Your task to perform on an android device: Show me popular games on the Play Store Image 0: 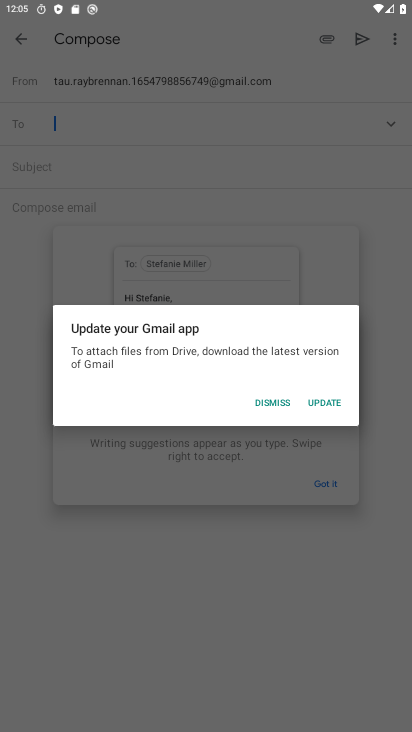
Step 0: press home button
Your task to perform on an android device: Show me popular games on the Play Store Image 1: 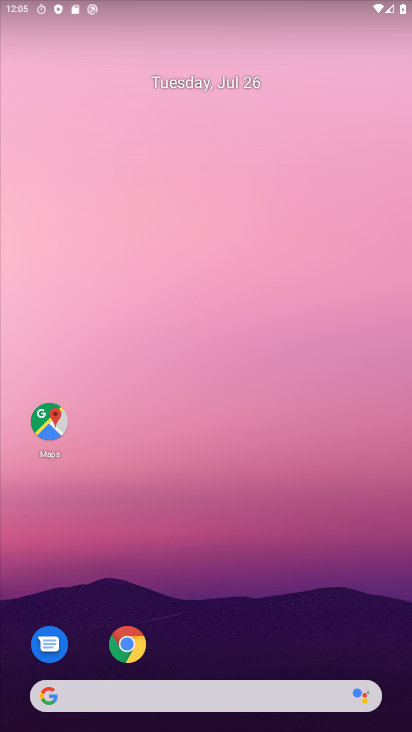
Step 1: drag from (238, 612) to (301, 65)
Your task to perform on an android device: Show me popular games on the Play Store Image 2: 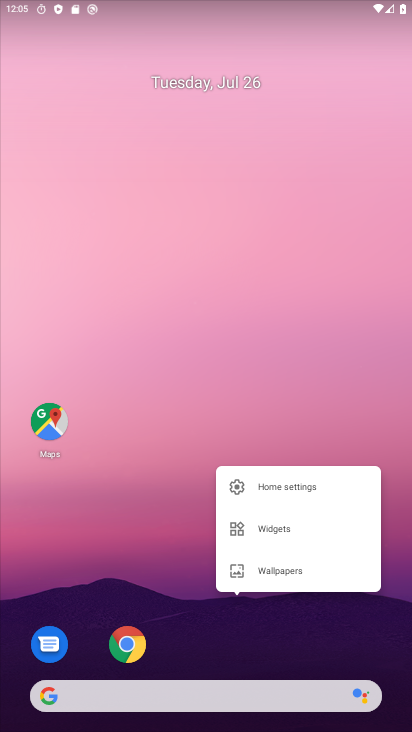
Step 2: click (270, 199)
Your task to perform on an android device: Show me popular games on the Play Store Image 3: 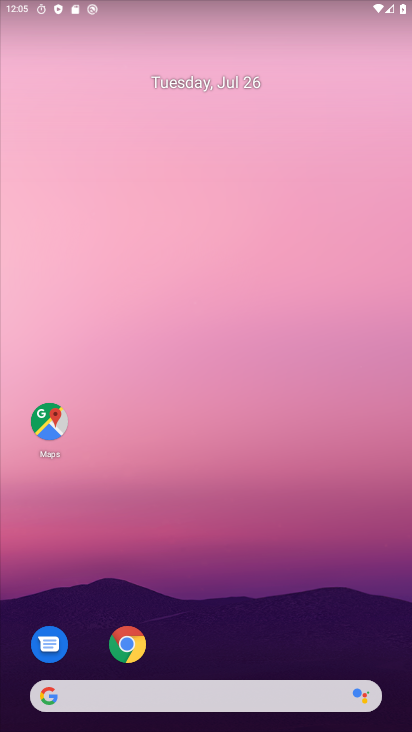
Step 3: drag from (245, 587) to (265, 67)
Your task to perform on an android device: Show me popular games on the Play Store Image 4: 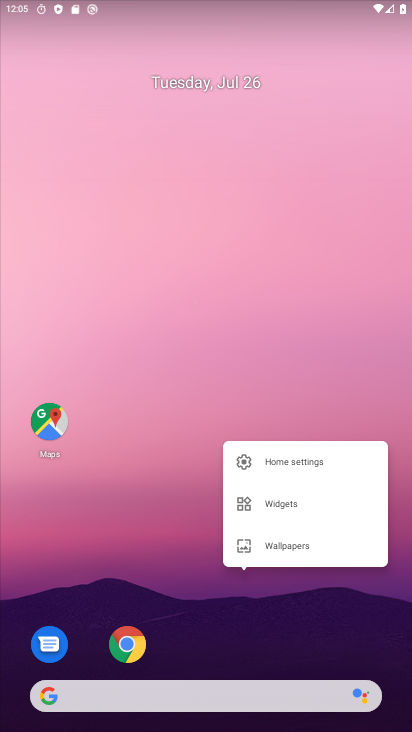
Step 4: click (152, 370)
Your task to perform on an android device: Show me popular games on the Play Store Image 5: 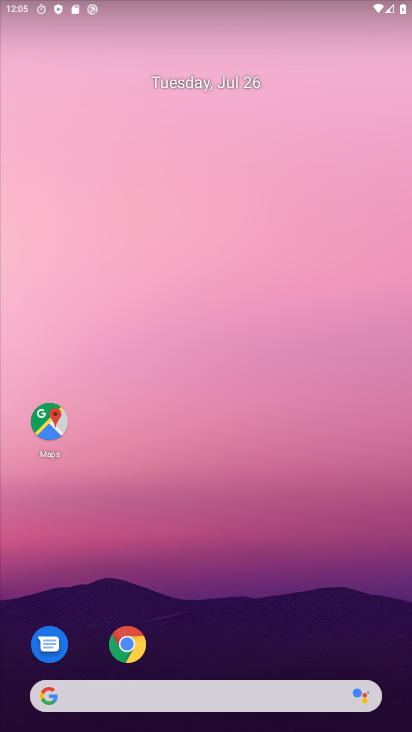
Step 5: drag from (279, 646) to (313, 4)
Your task to perform on an android device: Show me popular games on the Play Store Image 6: 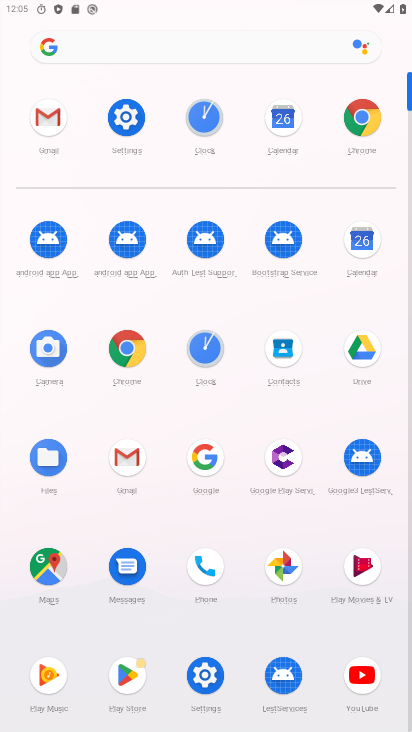
Step 6: click (136, 682)
Your task to perform on an android device: Show me popular games on the Play Store Image 7: 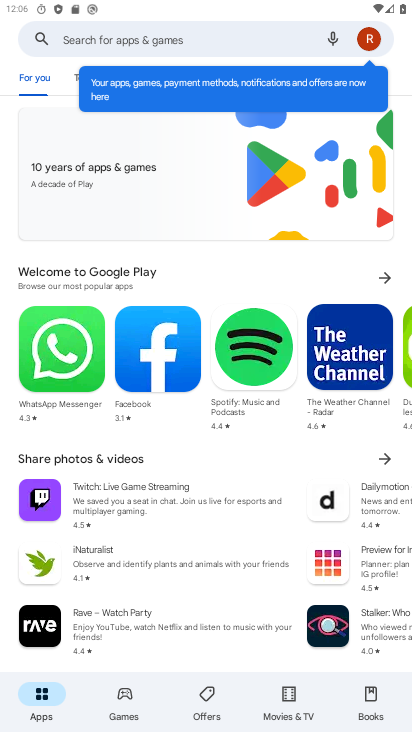
Step 7: click (146, 28)
Your task to perform on an android device: Show me popular games on the Play Store Image 8: 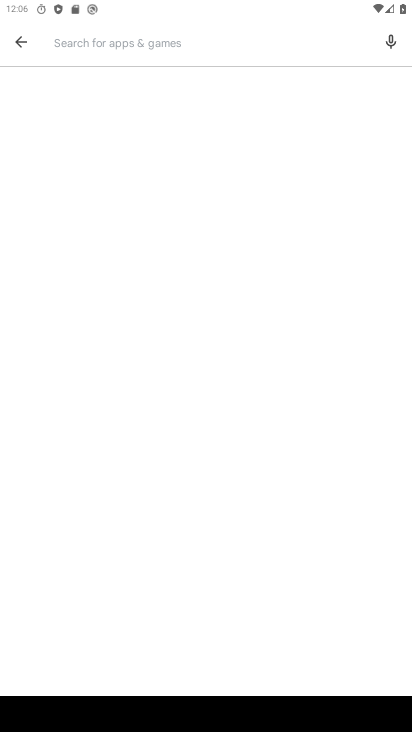
Step 8: type "popular game"
Your task to perform on an android device: Show me popular games on the Play Store Image 9: 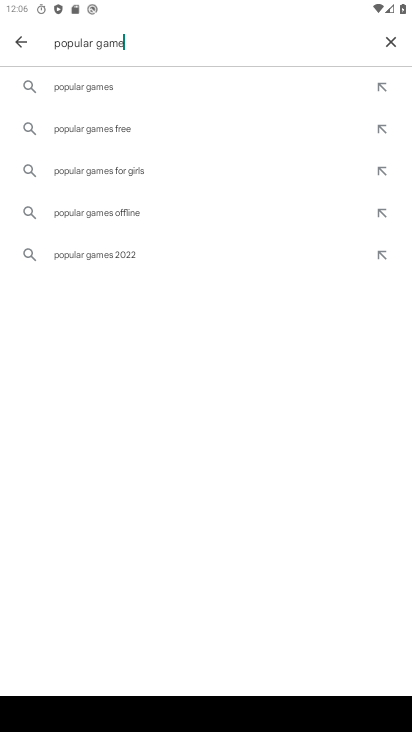
Step 9: click (108, 102)
Your task to perform on an android device: Show me popular games on the Play Store Image 10: 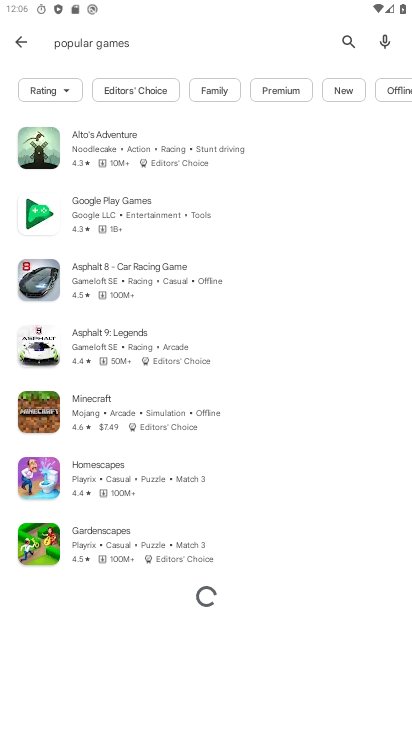
Step 10: drag from (187, 553) to (262, 175)
Your task to perform on an android device: Show me popular games on the Play Store Image 11: 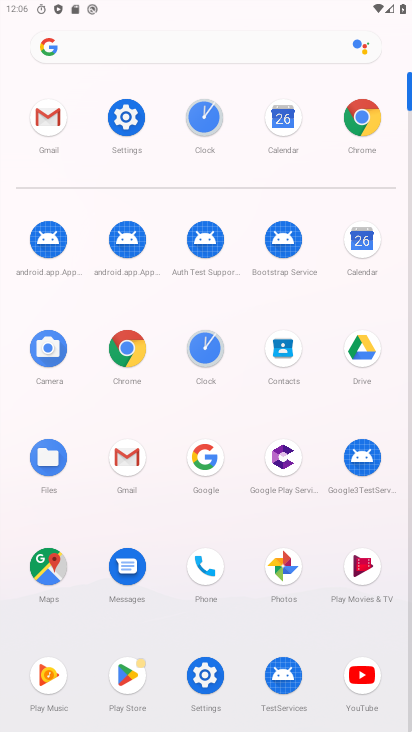
Step 11: drag from (130, 414) to (212, 157)
Your task to perform on an android device: Show me popular games on the Play Store Image 12: 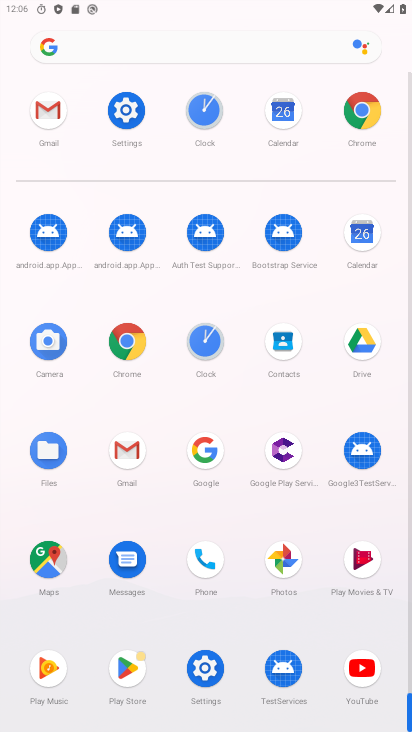
Step 12: click (136, 670)
Your task to perform on an android device: Show me popular games on the Play Store Image 13: 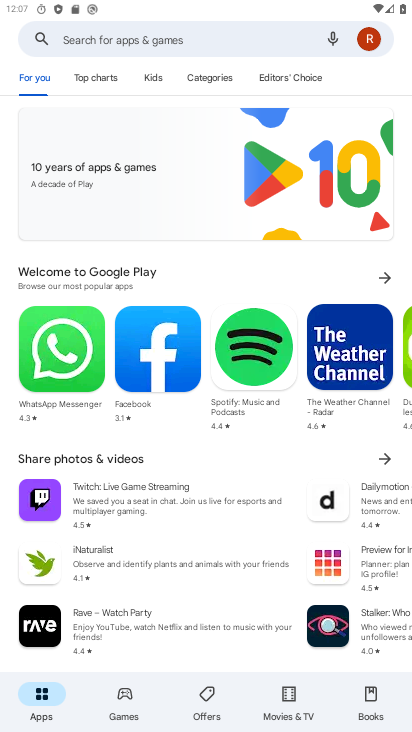
Step 13: click (104, 51)
Your task to perform on an android device: Show me popular games on the Play Store Image 14: 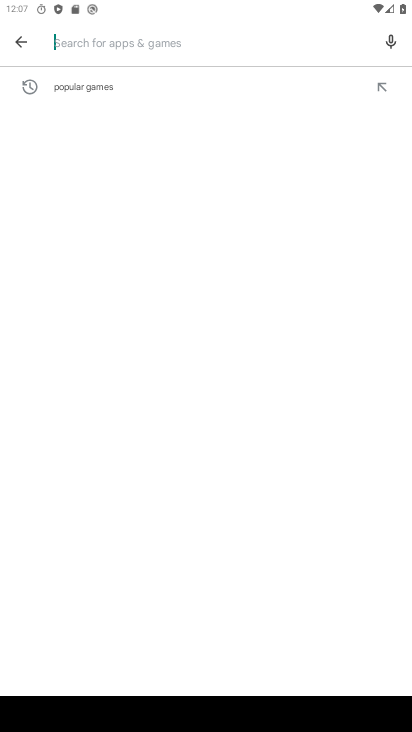
Step 14: click (77, 89)
Your task to perform on an android device: Show me popular games on the Play Store Image 15: 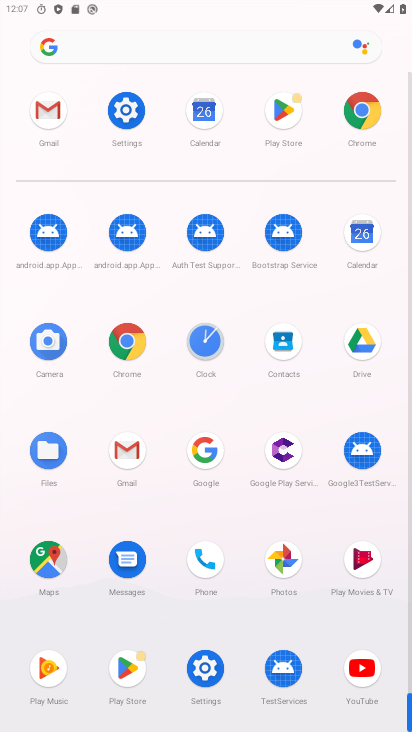
Step 15: task complete